Your task to perform on an android device: turn notification dots on Image 0: 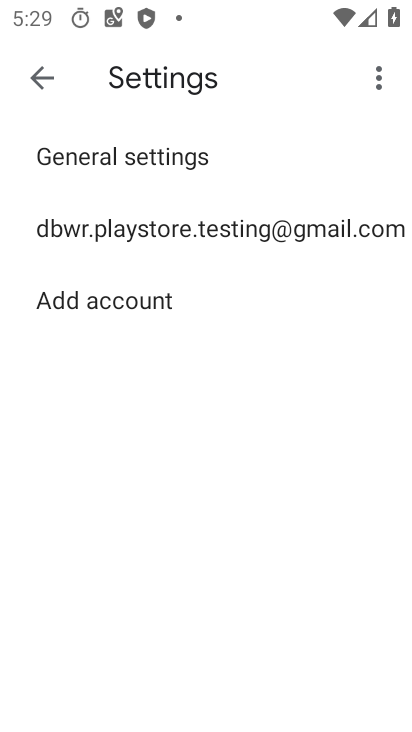
Step 0: press back button
Your task to perform on an android device: turn notification dots on Image 1: 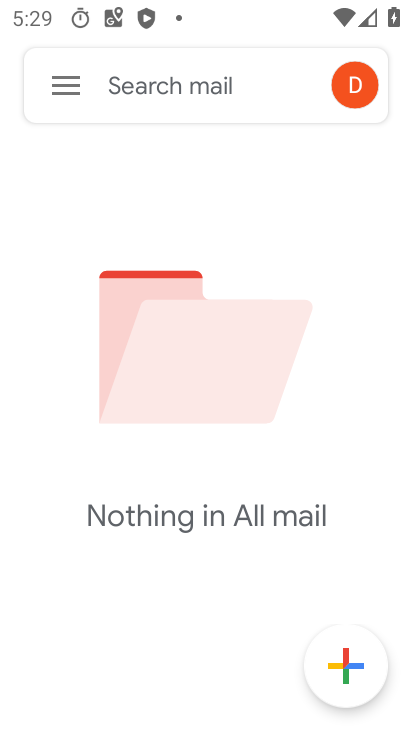
Step 1: press back button
Your task to perform on an android device: turn notification dots on Image 2: 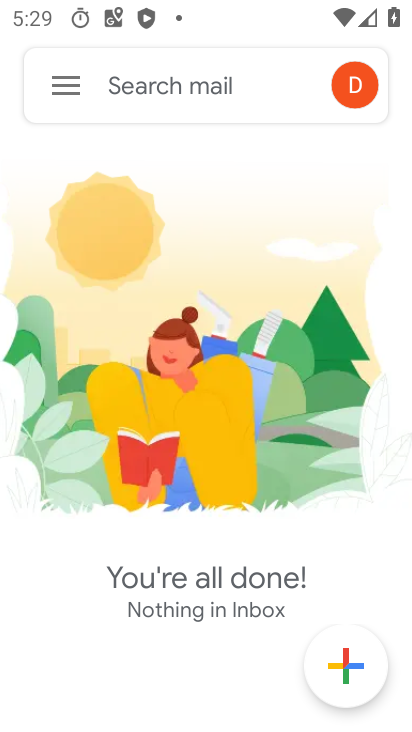
Step 2: press back button
Your task to perform on an android device: turn notification dots on Image 3: 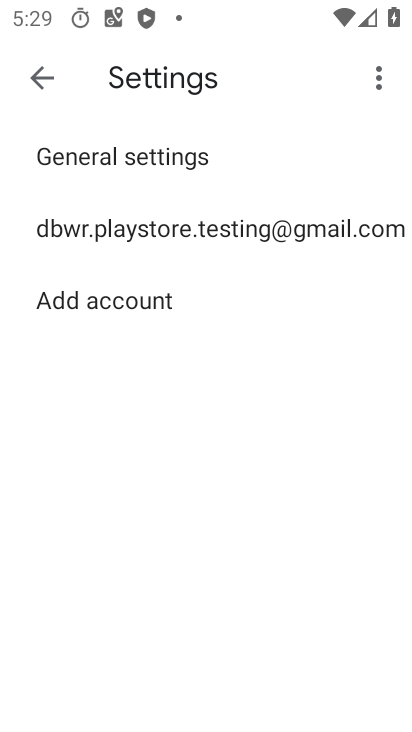
Step 3: press back button
Your task to perform on an android device: turn notification dots on Image 4: 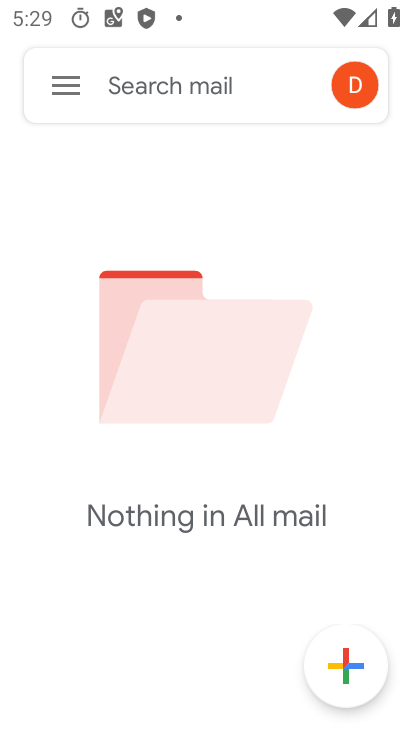
Step 4: press home button
Your task to perform on an android device: turn notification dots on Image 5: 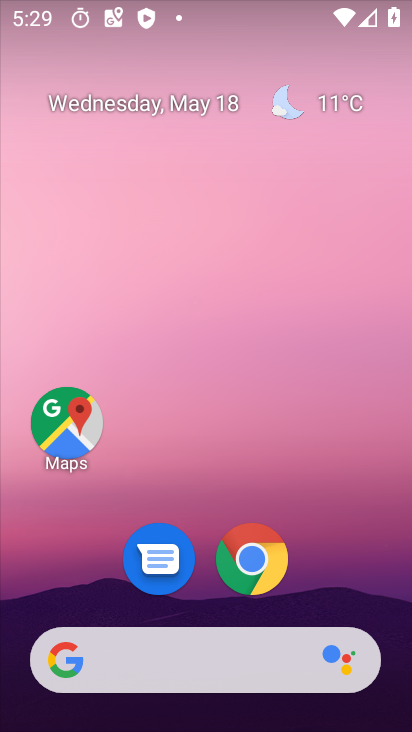
Step 5: drag from (174, 621) to (318, 28)
Your task to perform on an android device: turn notification dots on Image 6: 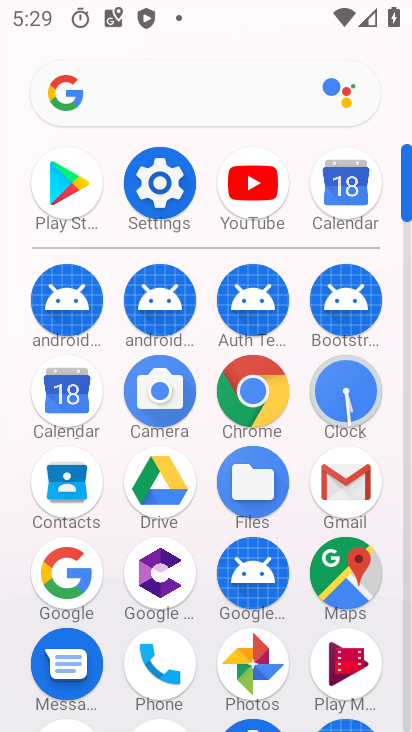
Step 6: click (162, 162)
Your task to perform on an android device: turn notification dots on Image 7: 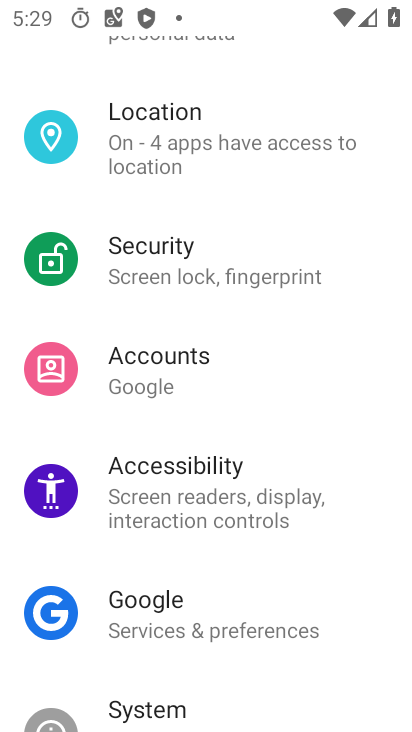
Step 7: drag from (182, 176) to (125, 724)
Your task to perform on an android device: turn notification dots on Image 8: 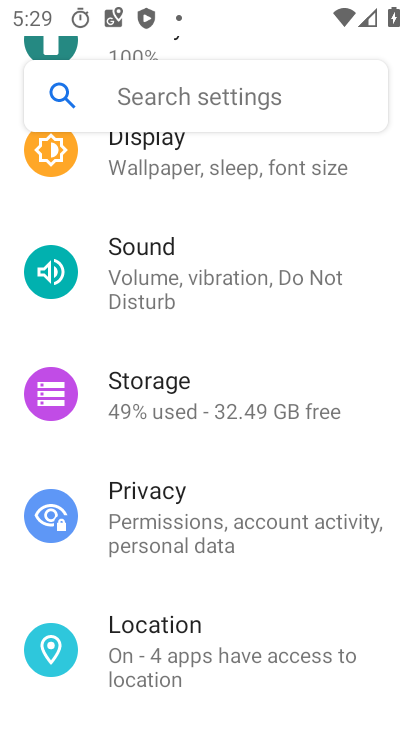
Step 8: drag from (171, 218) to (171, 582)
Your task to perform on an android device: turn notification dots on Image 9: 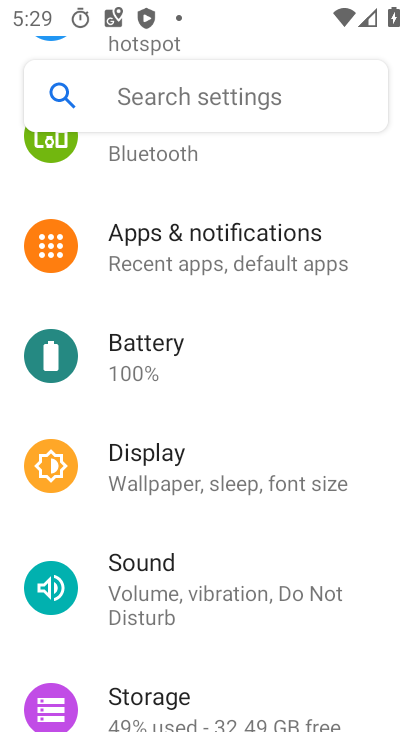
Step 9: click (252, 242)
Your task to perform on an android device: turn notification dots on Image 10: 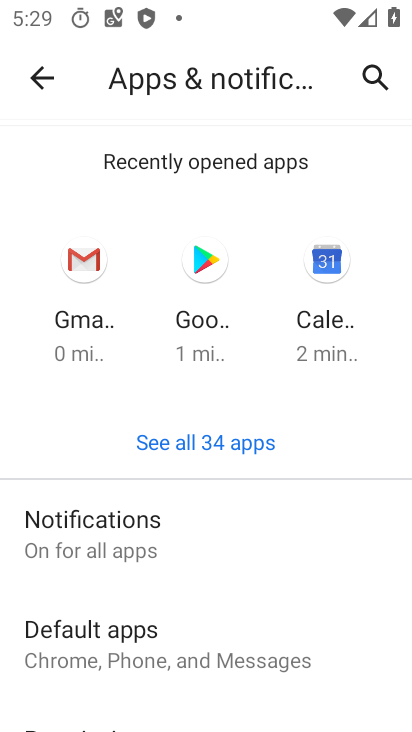
Step 10: click (165, 541)
Your task to perform on an android device: turn notification dots on Image 11: 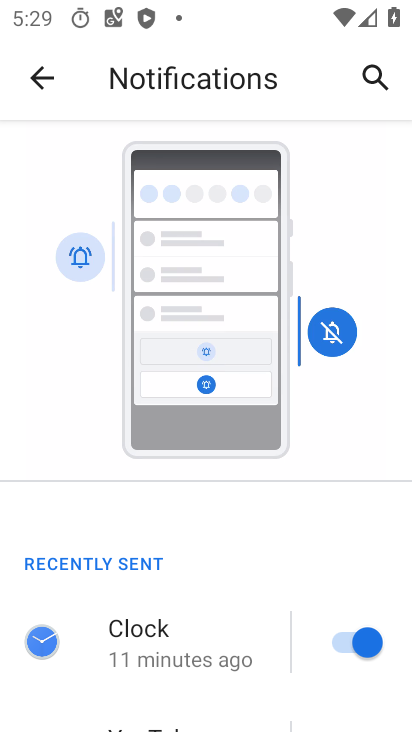
Step 11: drag from (158, 698) to (270, 214)
Your task to perform on an android device: turn notification dots on Image 12: 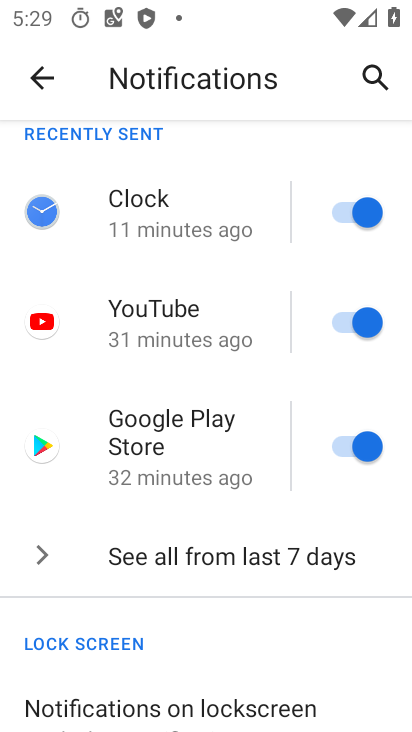
Step 12: drag from (169, 633) to (229, 211)
Your task to perform on an android device: turn notification dots on Image 13: 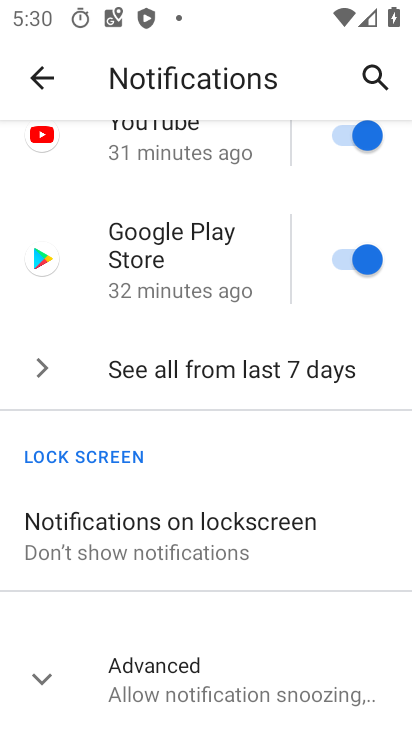
Step 13: drag from (275, 649) to (291, 118)
Your task to perform on an android device: turn notification dots on Image 14: 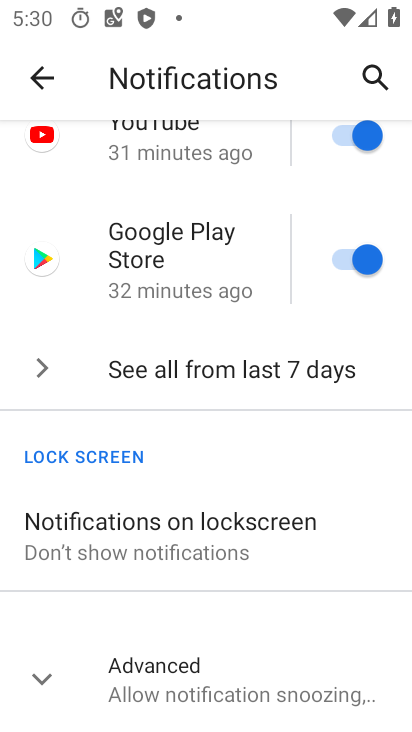
Step 14: click (185, 670)
Your task to perform on an android device: turn notification dots on Image 15: 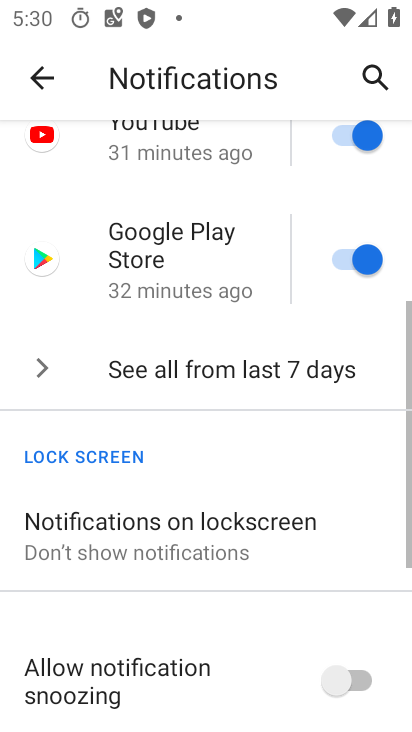
Step 15: drag from (182, 667) to (205, 172)
Your task to perform on an android device: turn notification dots on Image 16: 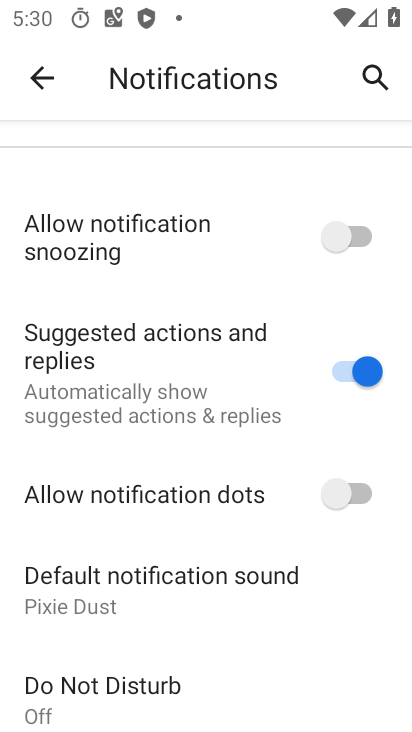
Step 16: click (342, 494)
Your task to perform on an android device: turn notification dots on Image 17: 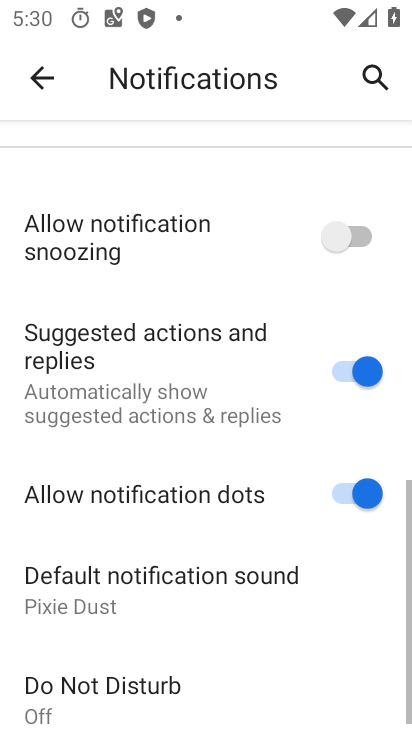
Step 17: task complete